Your task to perform on an android device: Open accessibility settings Image 0: 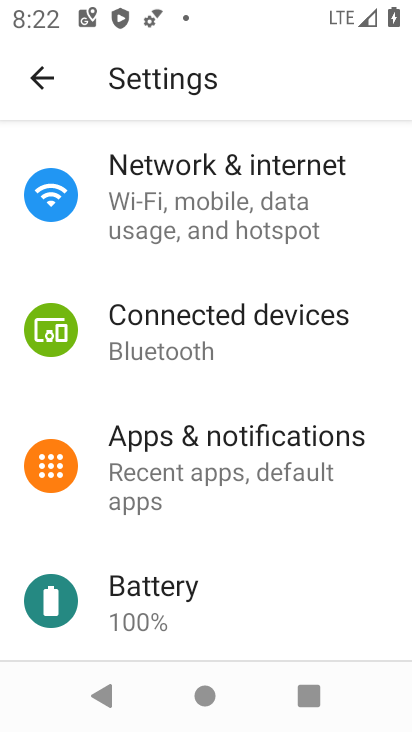
Step 0: drag from (184, 507) to (260, 286)
Your task to perform on an android device: Open accessibility settings Image 1: 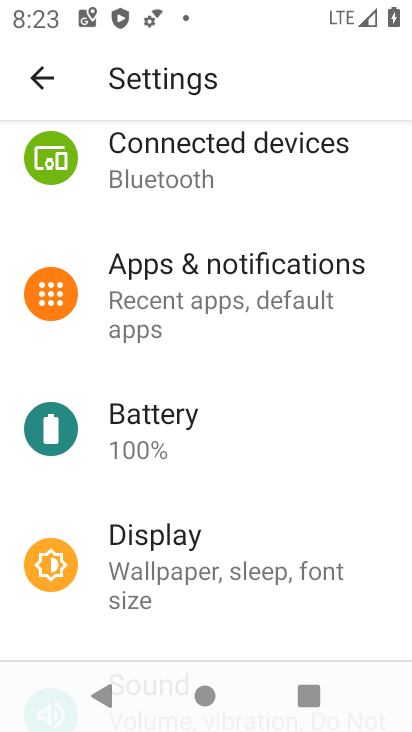
Step 1: drag from (184, 506) to (215, 231)
Your task to perform on an android device: Open accessibility settings Image 2: 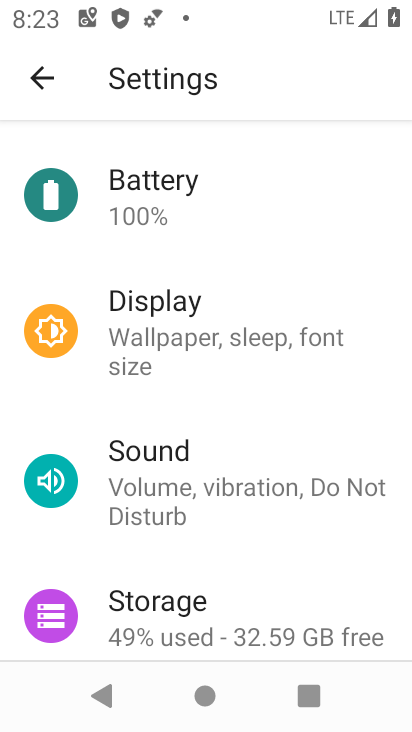
Step 2: drag from (209, 487) to (232, 319)
Your task to perform on an android device: Open accessibility settings Image 3: 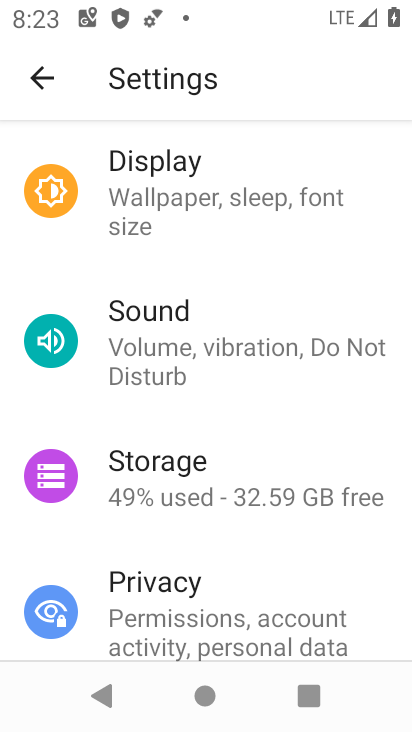
Step 3: click (204, 600)
Your task to perform on an android device: Open accessibility settings Image 4: 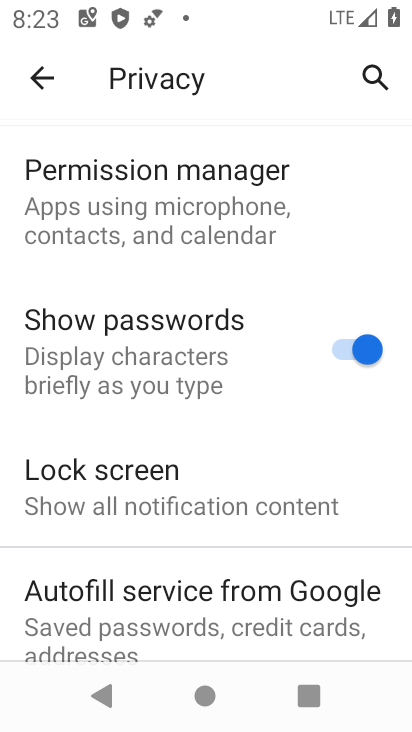
Step 4: task complete